Your task to perform on an android device: toggle data saver in the chrome app Image 0: 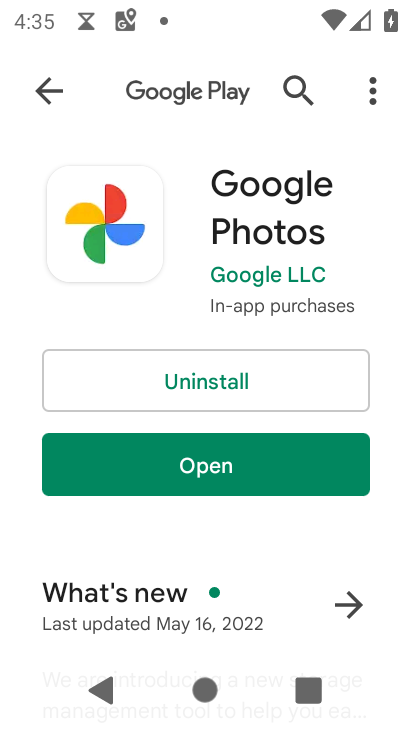
Step 0: press home button
Your task to perform on an android device: toggle data saver in the chrome app Image 1: 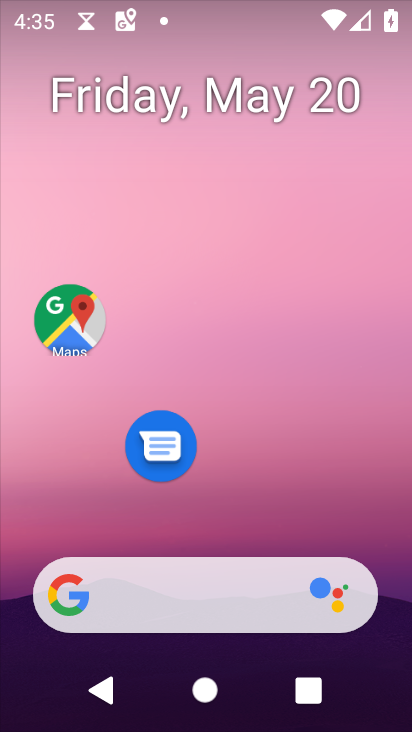
Step 1: drag from (209, 526) to (274, 46)
Your task to perform on an android device: toggle data saver in the chrome app Image 2: 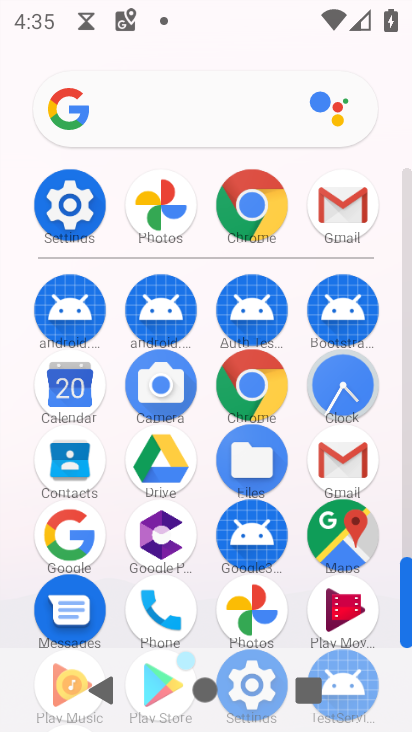
Step 2: click (258, 379)
Your task to perform on an android device: toggle data saver in the chrome app Image 3: 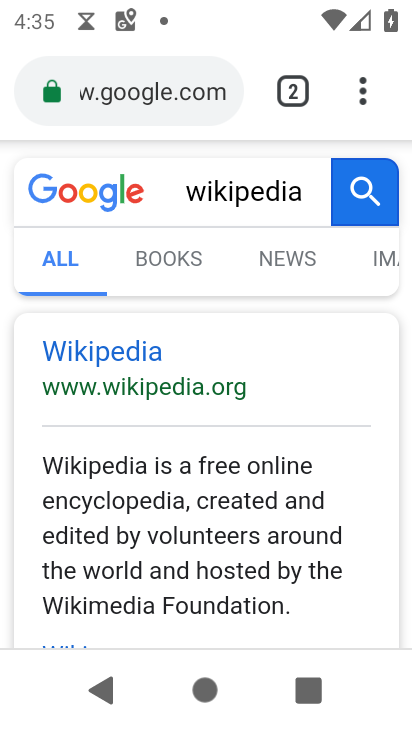
Step 3: click (359, 105)
Your task to perform on an android device: toggle data saver in the chrome app Image 4: 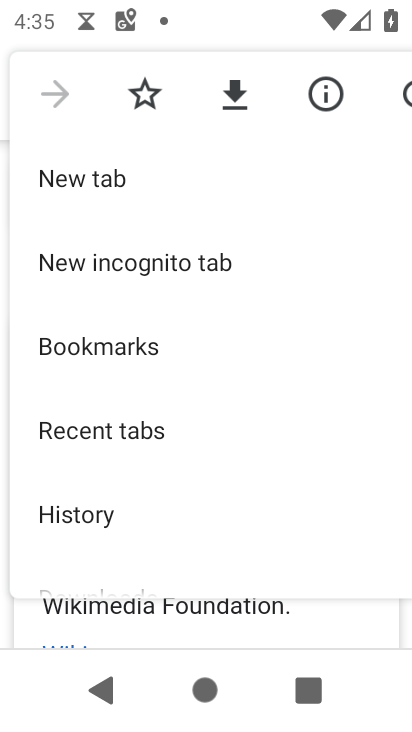
Step 4: drag from (143, 524) to (155, 331)
Your task to perform on an android device: toggle data saver in the chrome app Image 5: 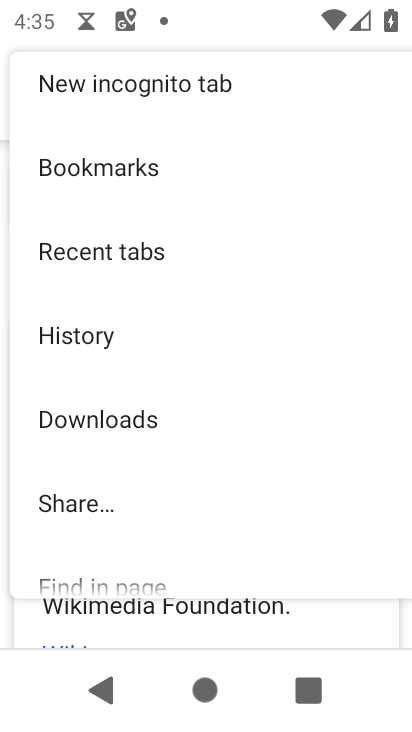
Step 5: drag from (111, 470) to (129, 284)
Your task to perform on an android device: toggle data saver in the chrome app Image 6: 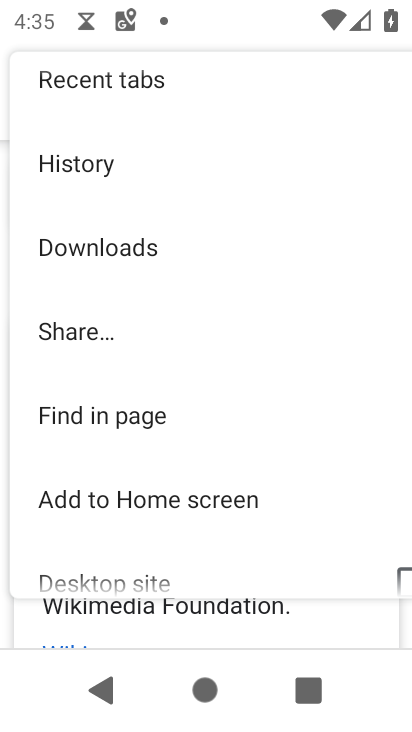
Step 6: drag from (86, 489) to (151, 96)
Your task to perform on an android device: toggle data saver in the chrome app Image 7: 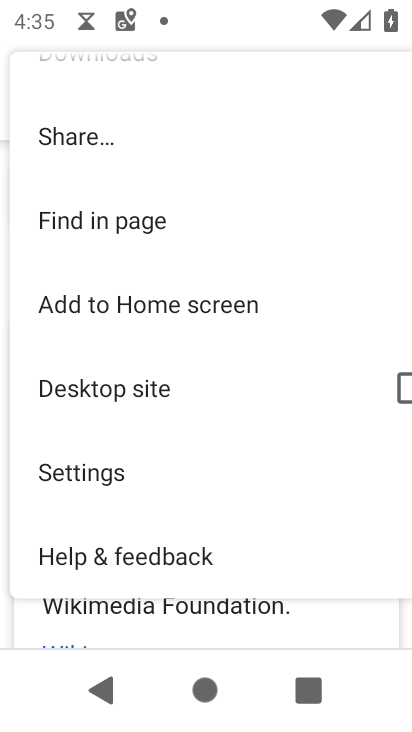
Step 7: click (99, 471)
Your task to perform on an android device: toggle data saver in the chrome app Image 8: 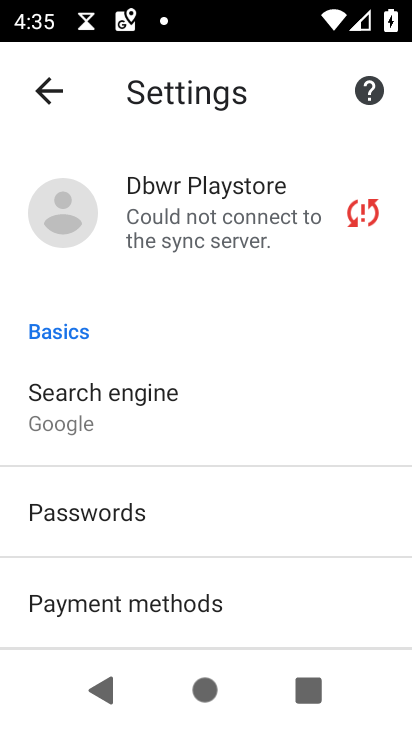
Step 8: drag from (146, 512) to (229, 44)
Your task to perform on an android device: toggle data saver in the chrome app Image 9: 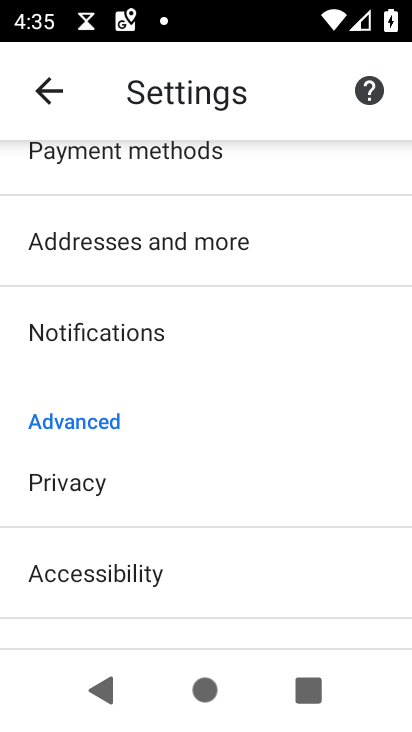
Step 9: drag from (105, 482) to (158, 219)
Your task to perform on an android device: toggle data saver in the chrome app Image 10: 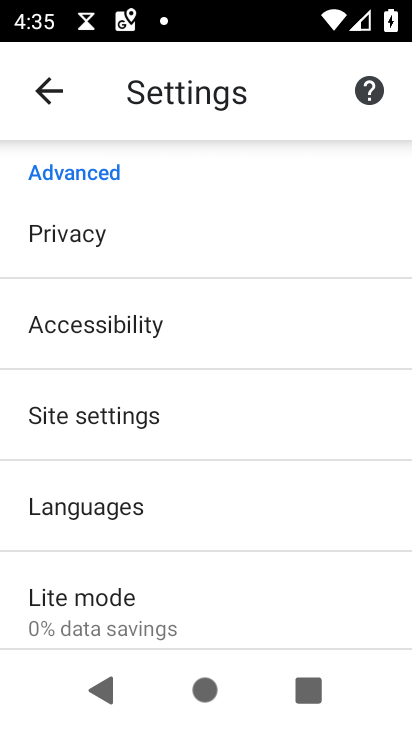
Step 10: click (100, 580)
Your task to perform on an android device: toggle data saver in the chrome app Image 11: 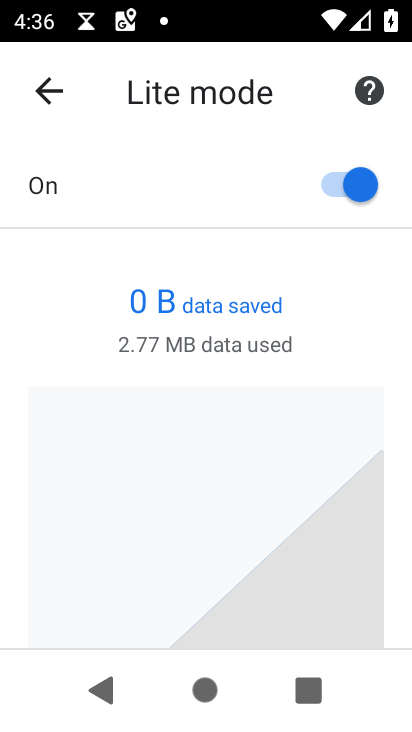
Step 11: click (302, 181)
Your task to perform on an android device: toggle data saver in the chrome app Image 12: 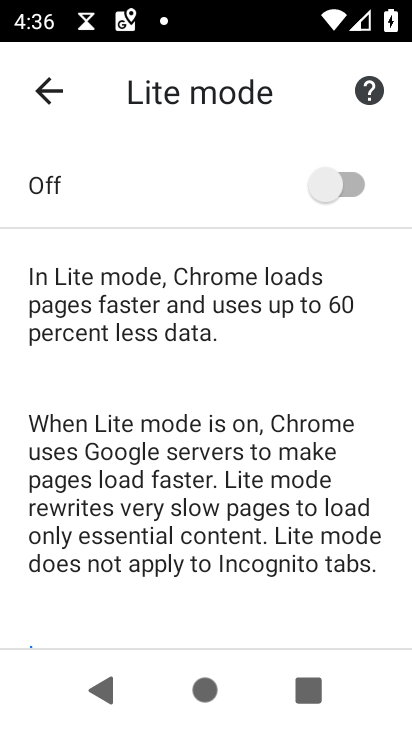
Step 12: task complete